Your task to perform on an android device: Is it going to rain tomorrow? Image 0: 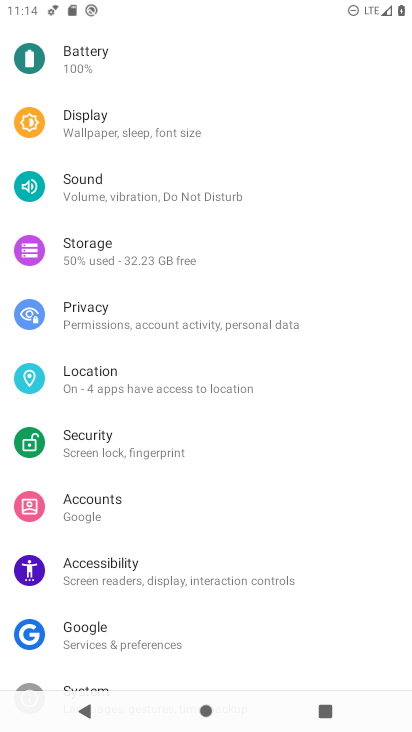
Step 0: press home button
Your task to perform on an android device: Is it going to rain tomorrow? Image 1: 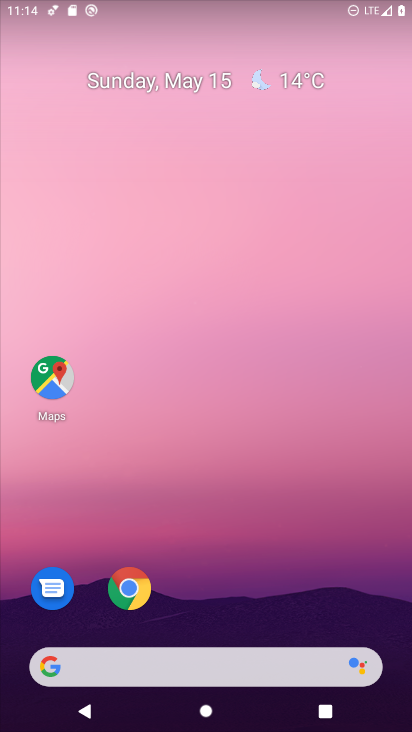
Step 1: click (293, 81)
Your task to perform on an android device: Is it going to rain tomorrow? Image 2: 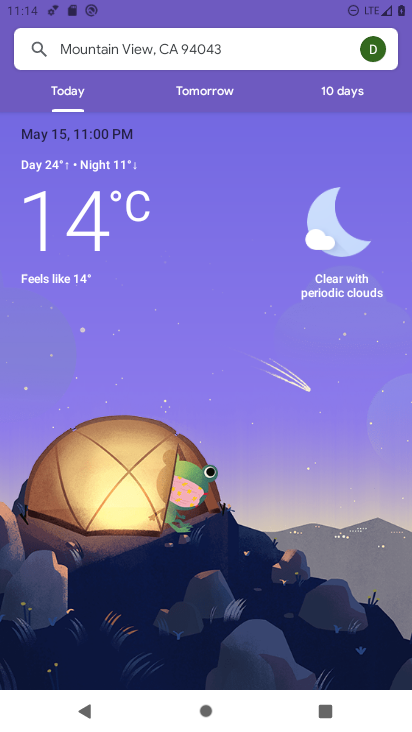
Step 2: click (222, 95)
Your task to perform on an android device: Is it going to rain tomorrow? Image 3: 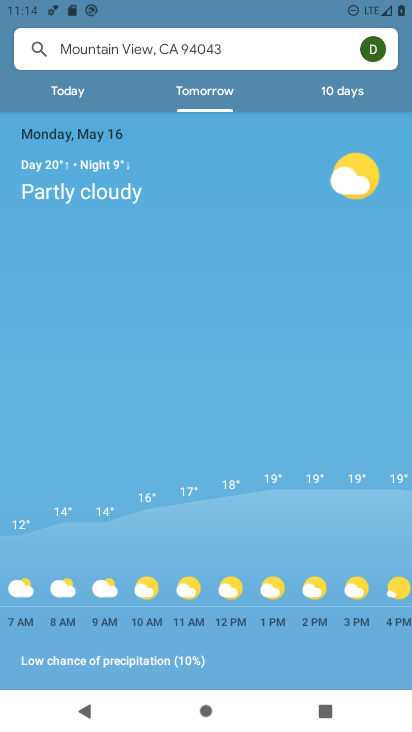
Step 3: task complete